Your task to perform on an android device: check battery use Image 0: 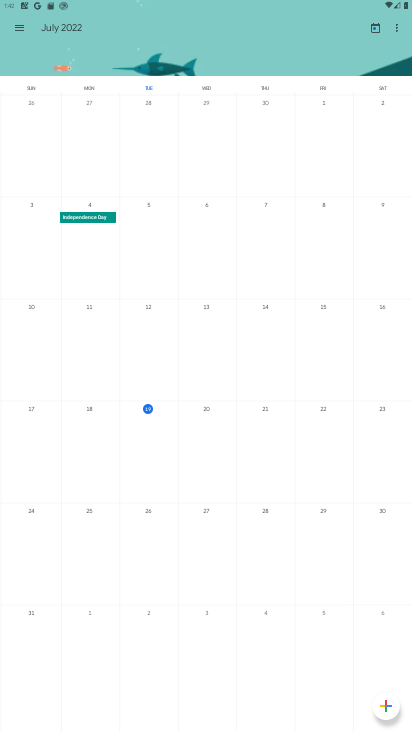
Step 0: press home button
Your task to perform on an android device: check battery use Image 1: 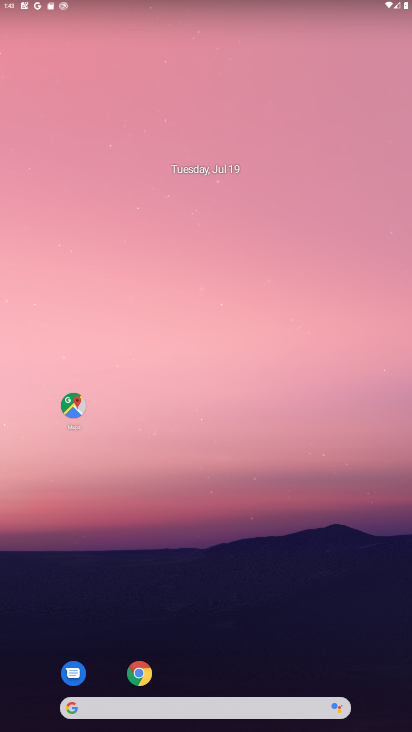
Step 1: drag from (278, 657) to (345, 1)
Your task to perform on an android device: check battery use Image 2: 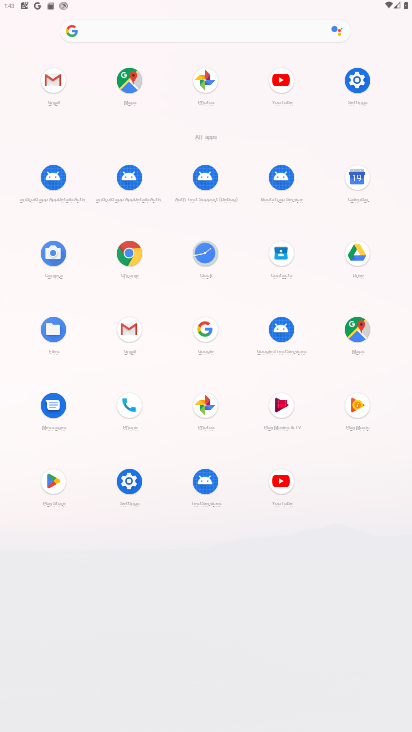
Step 2: click (356, 89)
Your task to perform on an android device: check battery use Image 3: 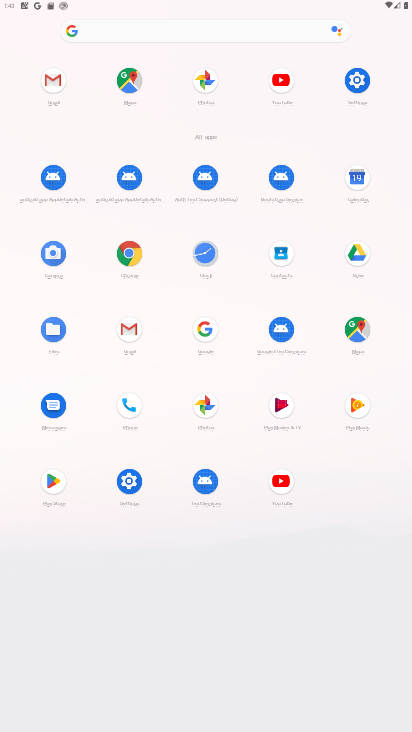
Step 3: click (356, 89)
Your task to perform on an android device: check battery use Image 4: 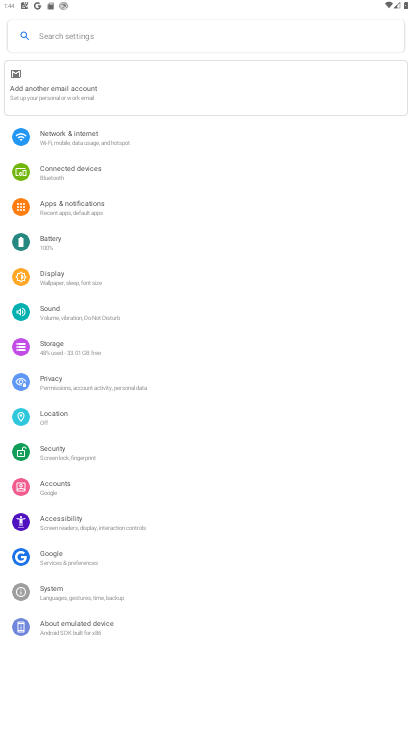
Step 4: click (54, 239)
Your task to perform on an android device: check battery use Image 5: 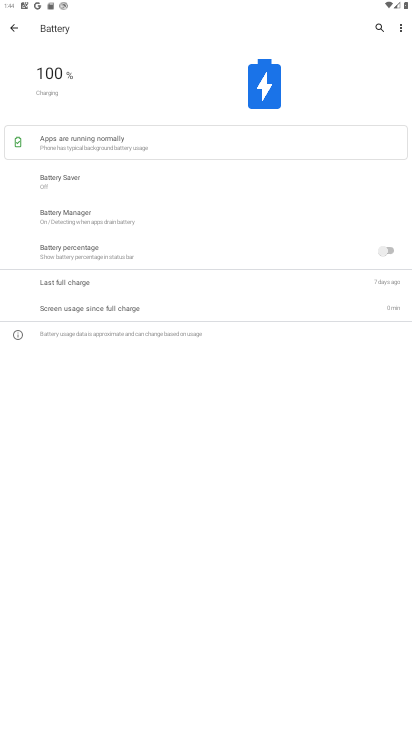
Step 5: click (397, 22)
Your task to perform on an android device: check battery use Image 6: 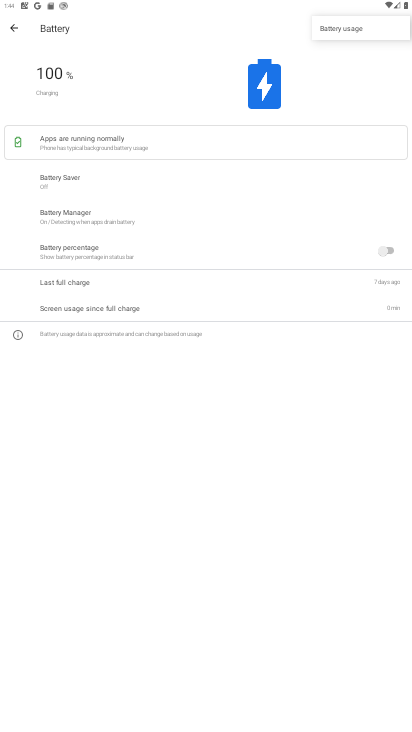
Step 6: click (371, 30)
Your task to perform on an android device: check battery use Image 7: 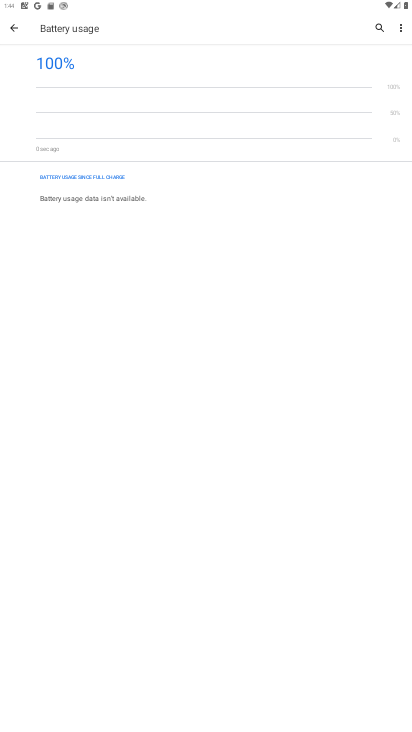
Step 7: task complete